Your task to perform on an android device: Open Chrome and go to settings Image 0: 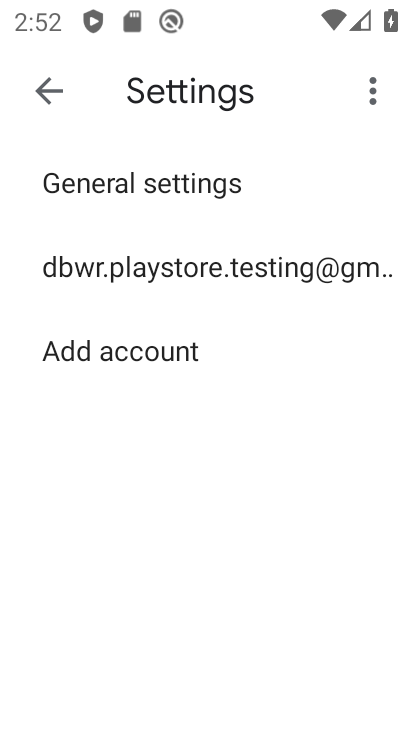
Step 0: press home button
Your task to perform on an android device: Open Chrome and go to settings Image 1: 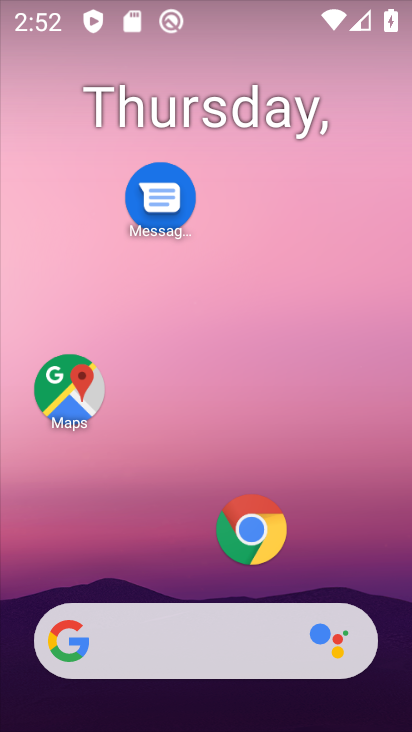
Step 1: click (255, 525)
Your task to perform on an android device: Open Chrome and go to settings Image 2: 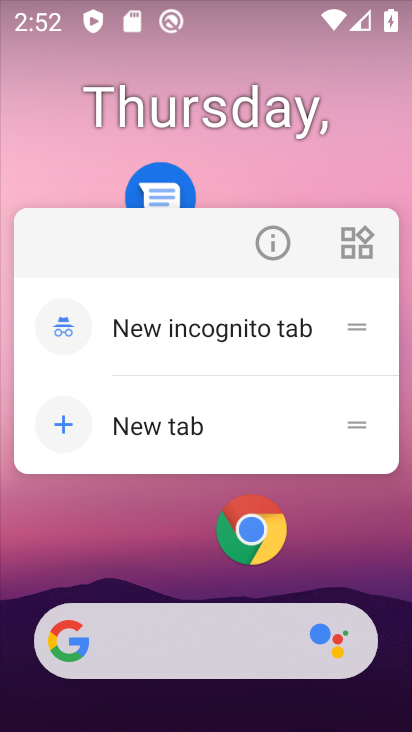
Step 2: click (247, 526)
Your task to perform on an android device: Open Chrome and go to settings Image 3: 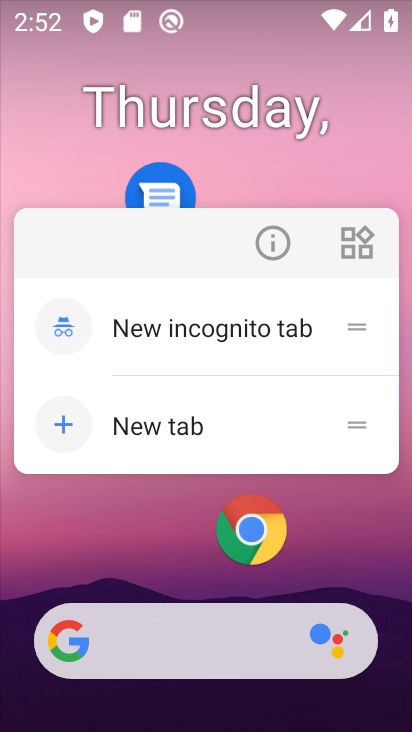
Step 3: click (252, 533)
Your task to perform on an android device: Open Chrome and go to settings Image 4: 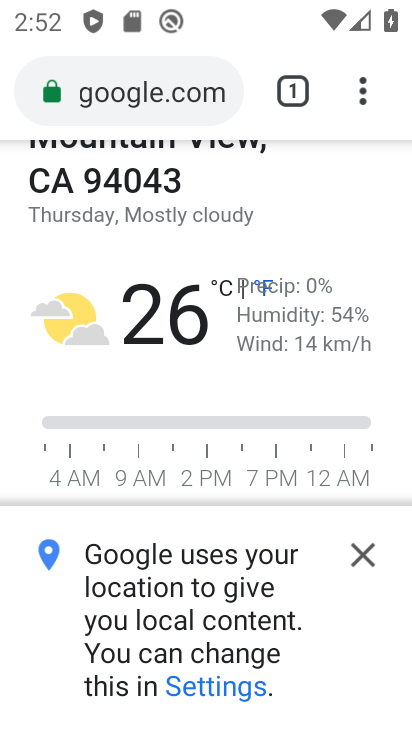
Step 4: click (366, 91)
Your task to perform on an android device: Open Chrome and go to settings Image 5: 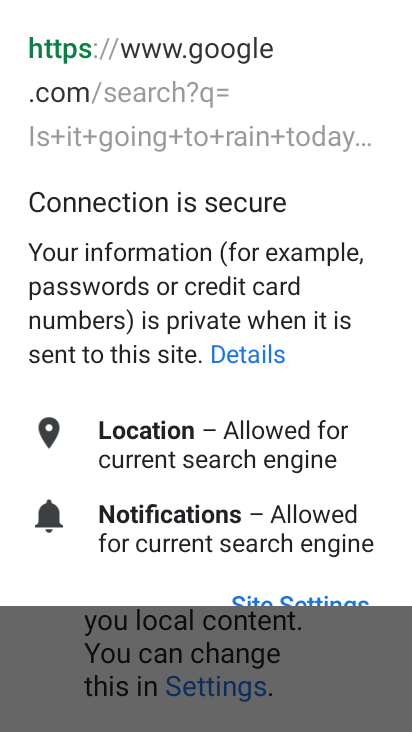
Step 5: click (323, 634)
Your task to perform on an android device: Open Chrome and go to settings Image 6: 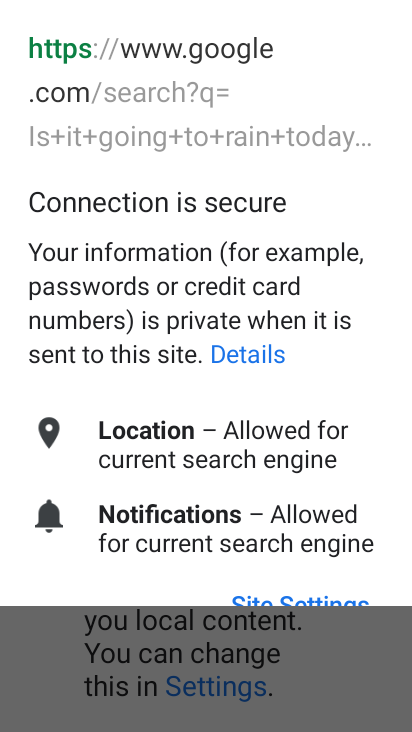
Step 6: press back button
Your task to perform on an android device: Open Chrome and go to settings Image 7: 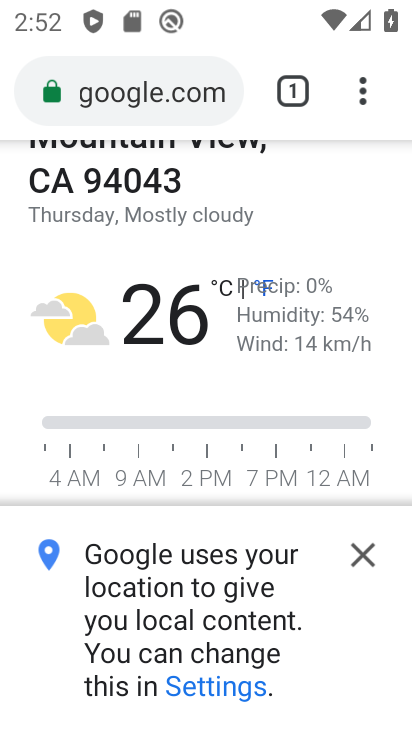
Step 7: click (360, 92)
Your task to perform on an android device: Open Chrome and go to settings Image 8: 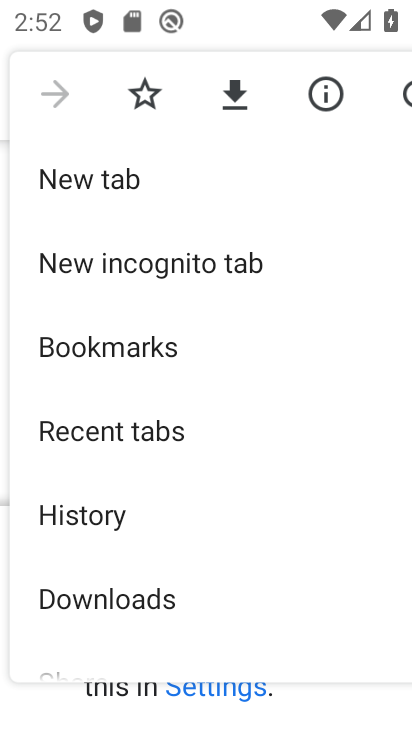
Step 8: drag from (152, 568) to (190, 255)
Your task to perform on an android device: Open Chrome and go to settings Image 9: 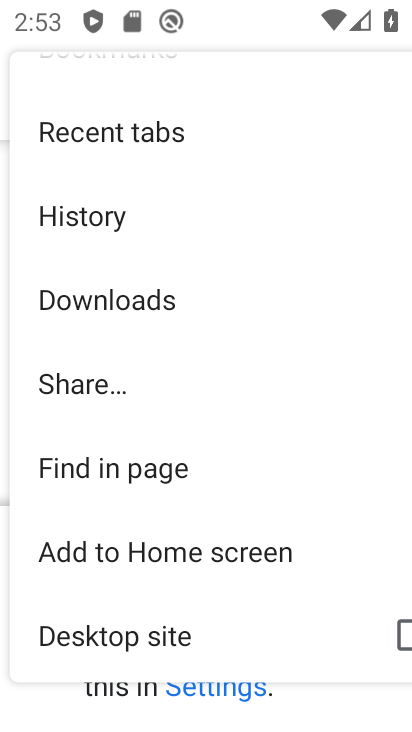
Step 9: drag from (146, 611) to (214, 290)
Your task to perform on an android device: Open Chrome and go to settings Image 10: 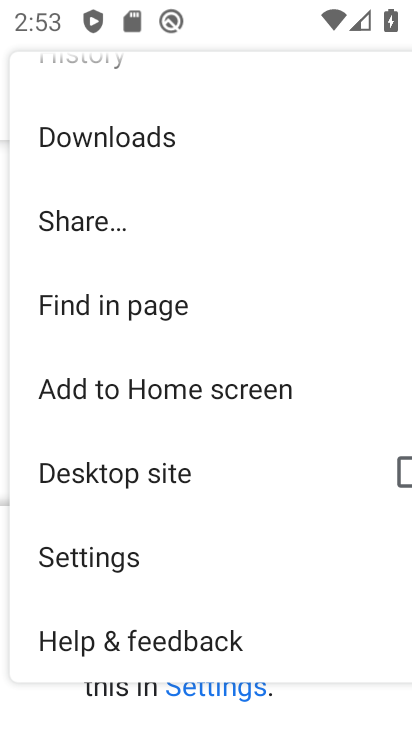
Step 10: click (100, 567)
Your task to perform on an android device: Open Chrome and go to settings Image 11: 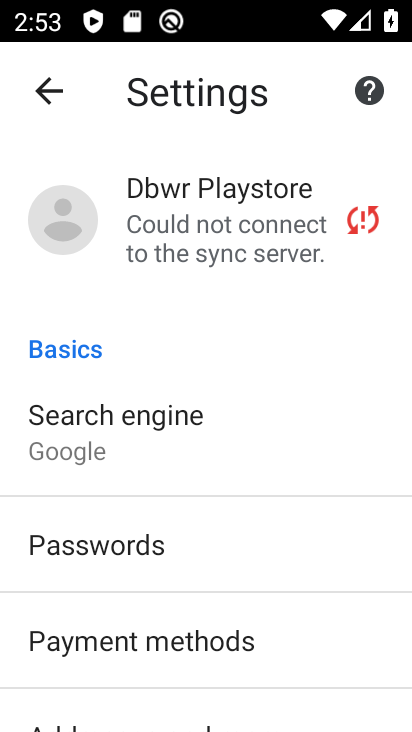
Step 11: task complete